Your task to perform on an android device: install app "VLC for Android" Image 0: 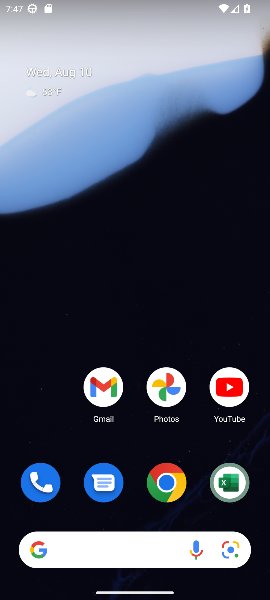
Step 0: drag from (133, 456) to (200, 19)
Your task to perform on an android device: install app "VLC for Android" Image 1: 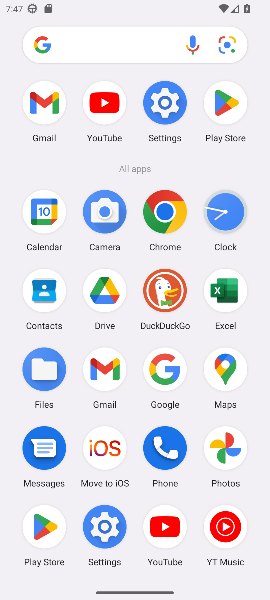
Step 1: click (50, 529)
Your task to perform on an android device: install app "VLC for Android" Image 2: 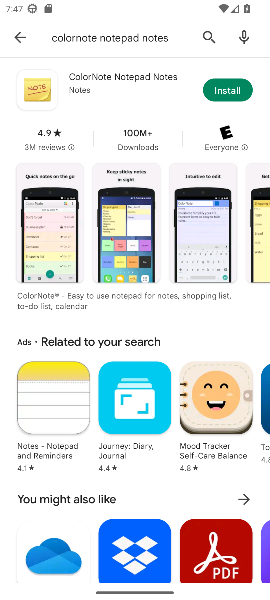
Step 2: click (161, 39)
Your task to perform on an android device: install app "VLC for Android" Image 3: 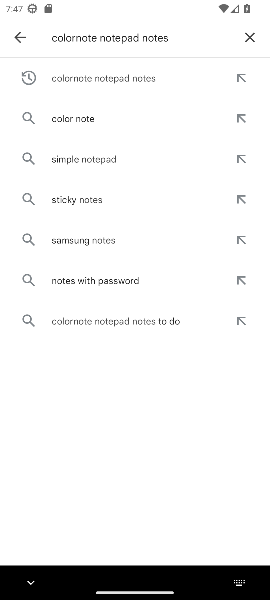
Step 3: click (244, 34)
Your task to perform on an android device: install app "VLC for Android" Image 4: 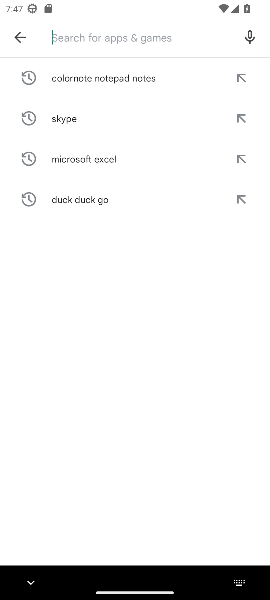
Step 4: type "VLC for android"
Your task to perform on an android device: install app "VLC for Android" Image 5: 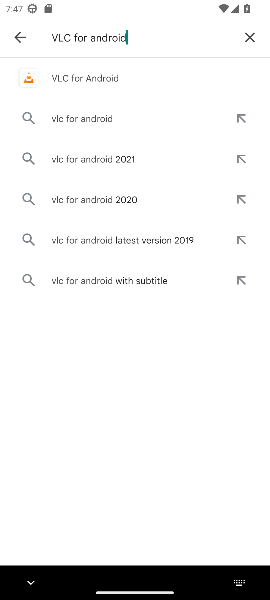
Step 5: click (102, 71)
Your task to perform on an android device: install app "VLC for Android" Image 6: 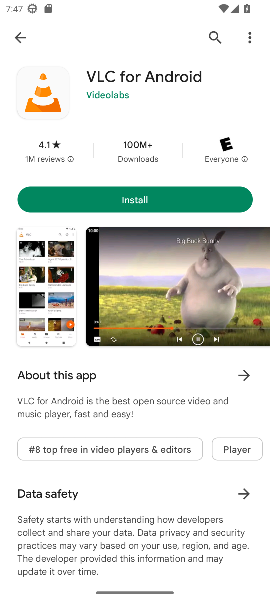
Step 6: click (160, 206)
Your task to perform on an android device: install app "VLC for Android" Image 7: 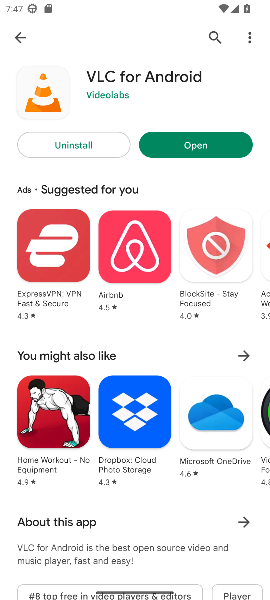
Step 7: task complete